Your task to perform on an android device: Turn off the flashlight Image 0: 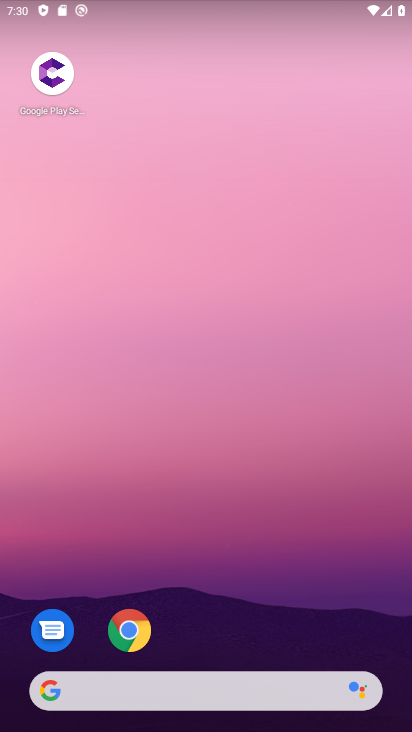
Step 0: drag from (263, 0) to (194, 313)
Your task to perform on an android device: Turn off the flashlight Image 1: 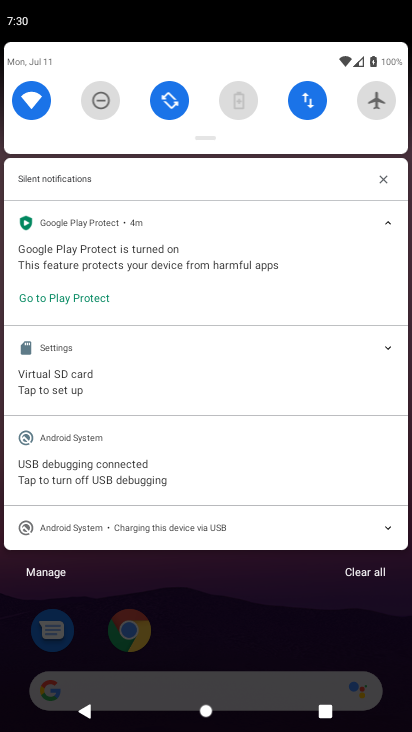
Step 1: task complete